Your task to perform on an android device: star an email in the gmail app Image 0: 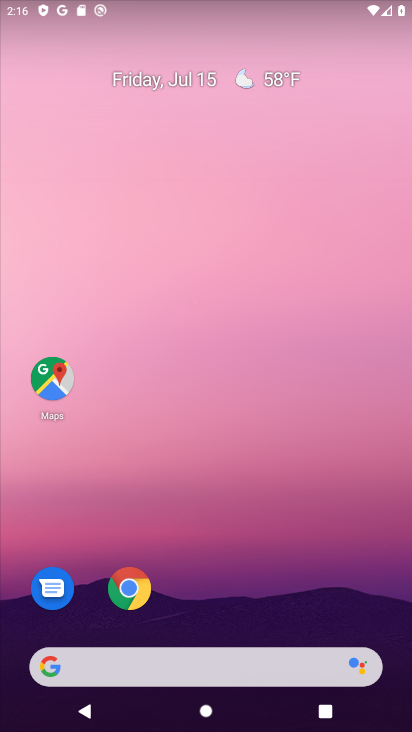
Step 0: drag from (201, 622) to (198, 69)
Your task to perform on an android device: star an email in the gmail app Image 1: 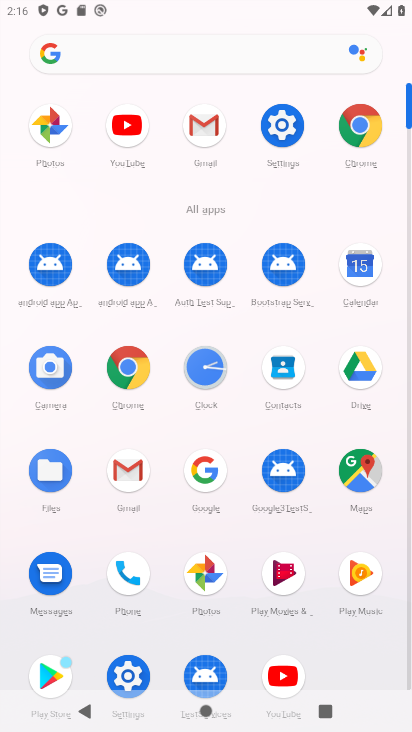
Step 1: click (195, 118)
Your task to perform on an android device: star an email in the gmail app Image 2: 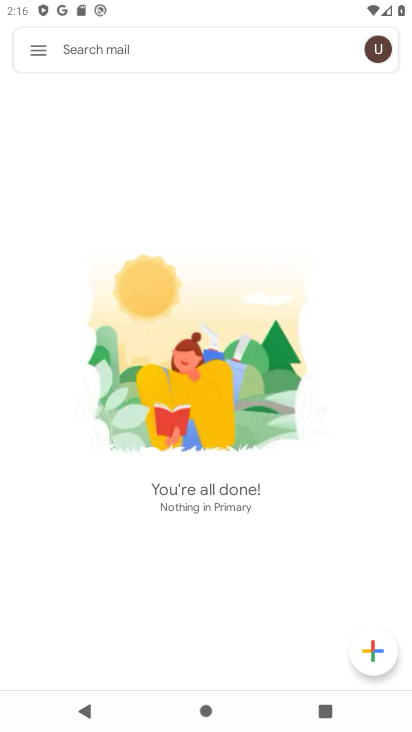
Step 2: click (34, 54)
Your task to perform on an android device: star an email in the gmail app Image 3: 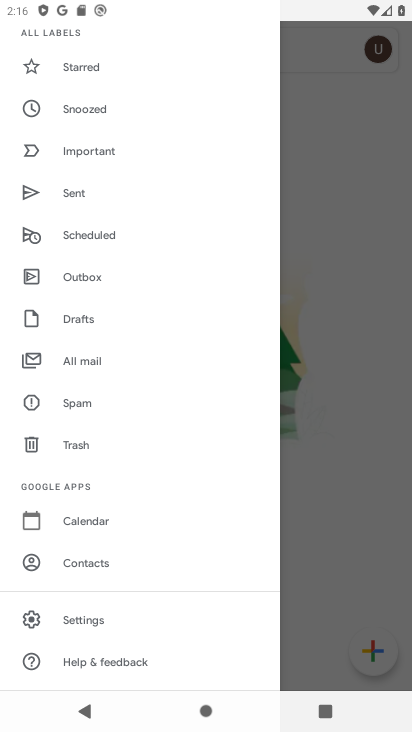
Step 3: click (75, 80)
Your task to perform on an android device: star an email in the gmail app Image 4: 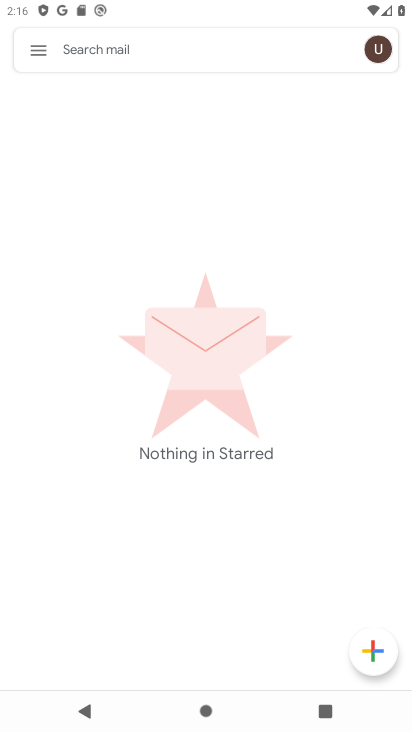
Step 4: task complete